Your task to perform on an android device: add a contact in the contacts app Image 0: 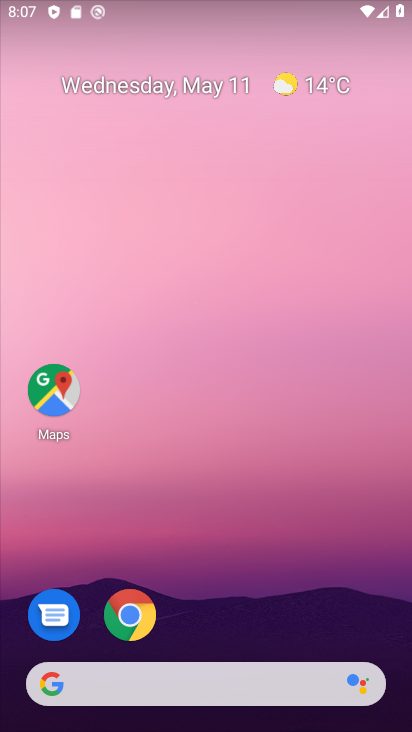
Step 0: drag from (257, 604) to (217, 225)
Your task to perform on an android device: add a contact in the contacts app Image 1: 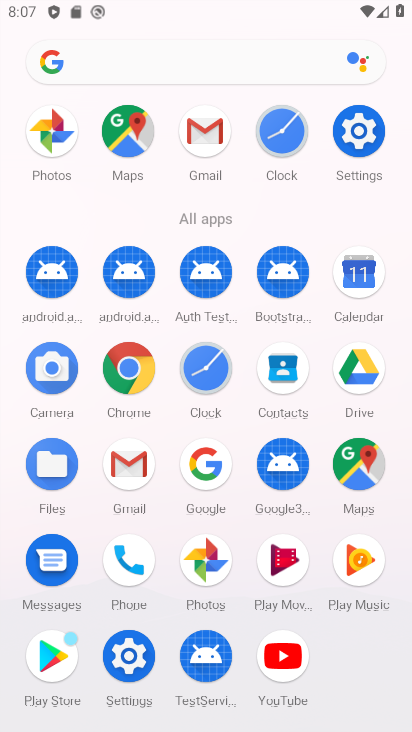
Step 1: click (289, 371)
Your task to perform on an android device: add a contact in the contacts app Image 2: 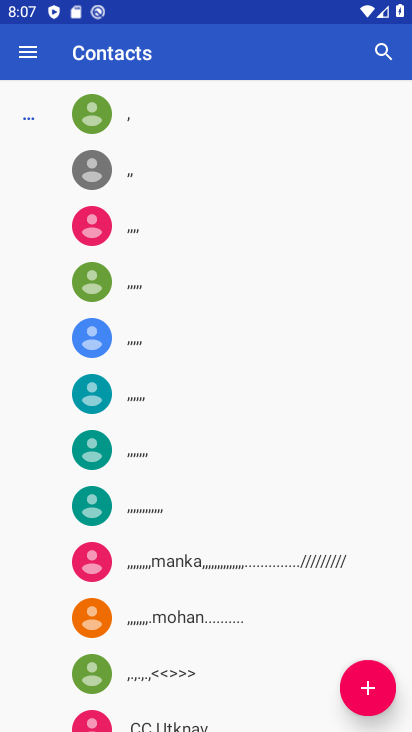
Step 2: click (363, 689)
Your task to perform on an android device: add a contact in the contacts app Image 3: 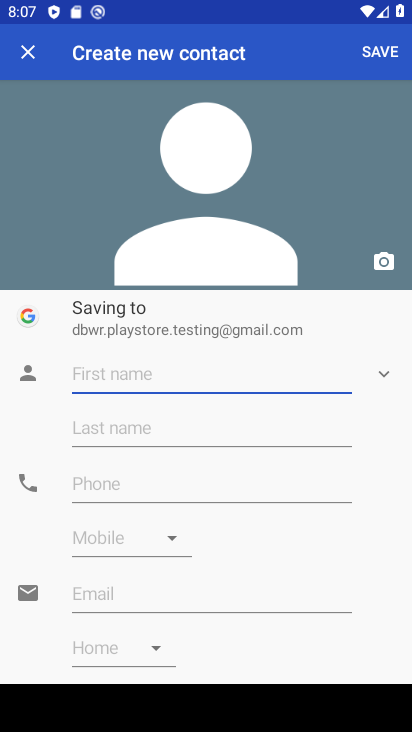
Step 3: type "sgergsfd"
Your task to perform on an android device: add a contact in the contacts app Image 4: 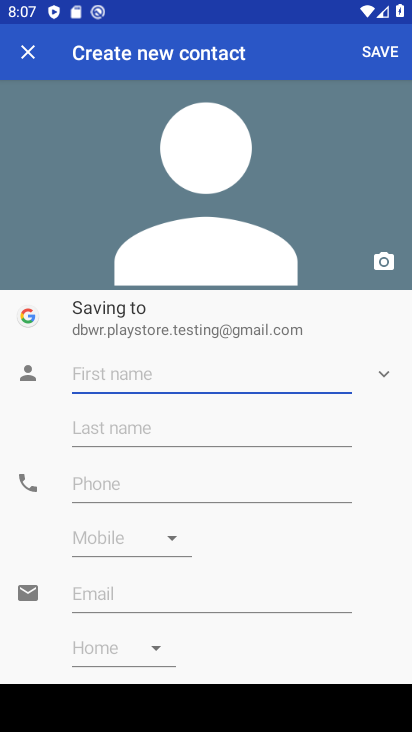
Step 4: click (112, 493)
Your task to perform on an android device: add a contact in the contacts app Image 5: 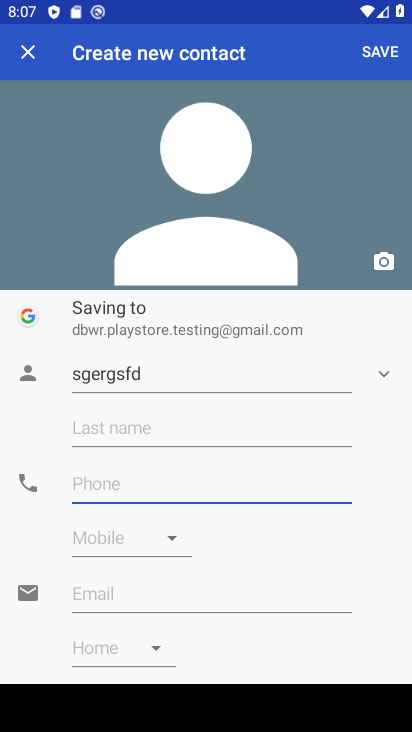
Step 5: type "4321432144"
Your task to perform on an android device: add a contact in the contacts app Image 6: 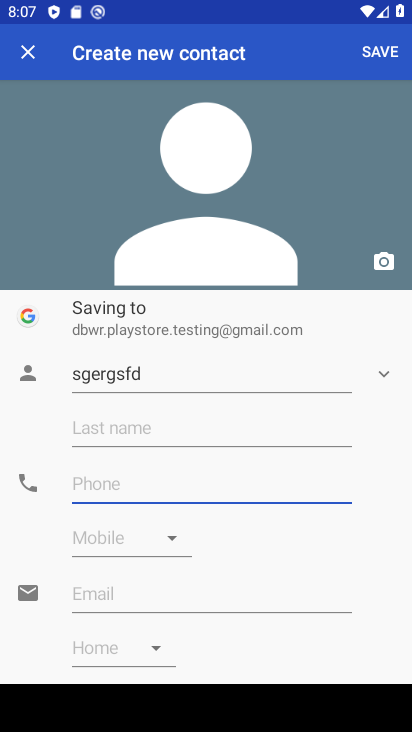
Step 6: click (367, 63)
Your task to perform on an android device: add a contact in the contacts app Image 7: 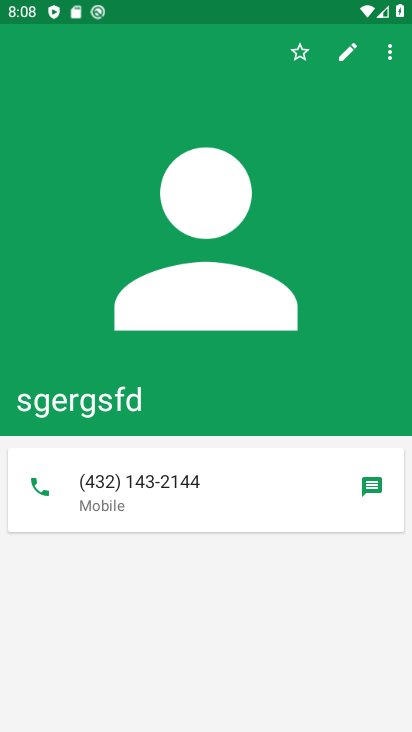
Step 7: task complete